Your task to perform on an android device: set the stopwatch Image 0: 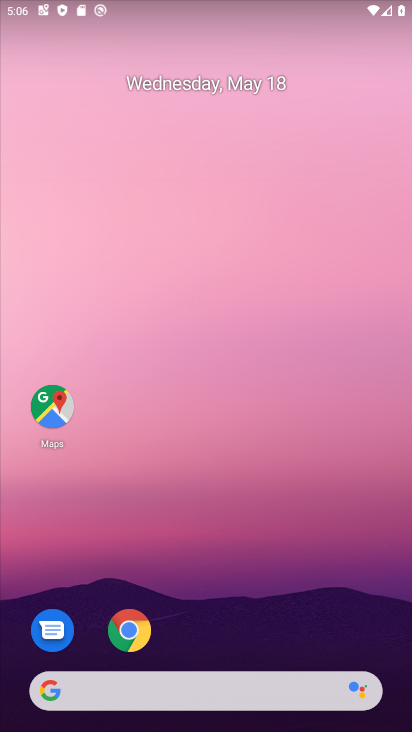
Step 0: drag from (159, 665) to (246, 218)
Your task to perform on an android device: set the stopwatch Image 1: 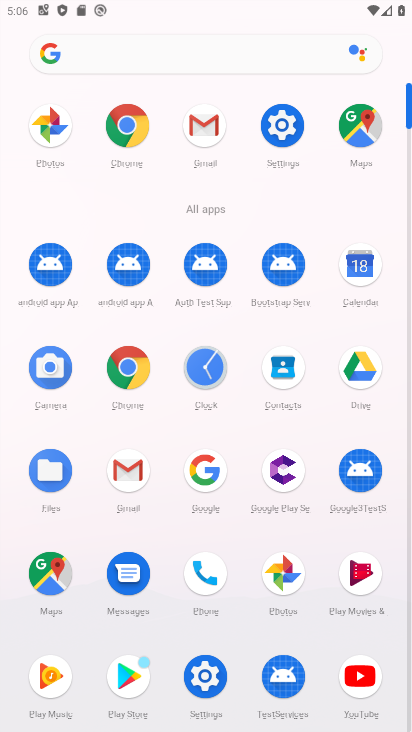
Step 1: click (198, 358)
Your task to perform on an android device: set the stopwatch Image 2: 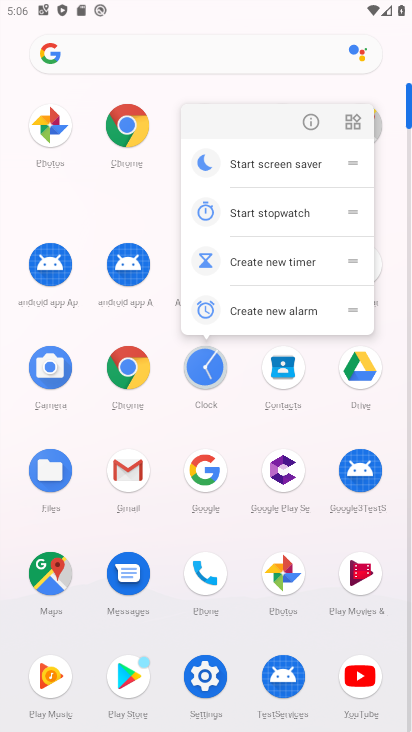
Step 2: click (197, 372)
Your task to perform on an android device: set the stopwatch Image 3: 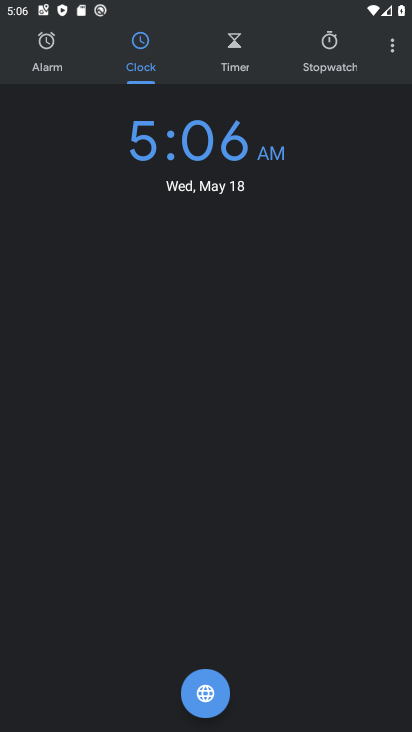
Step 3: click (322, 55)
Your task to perform on an android device: set the stopwatch Image 4: 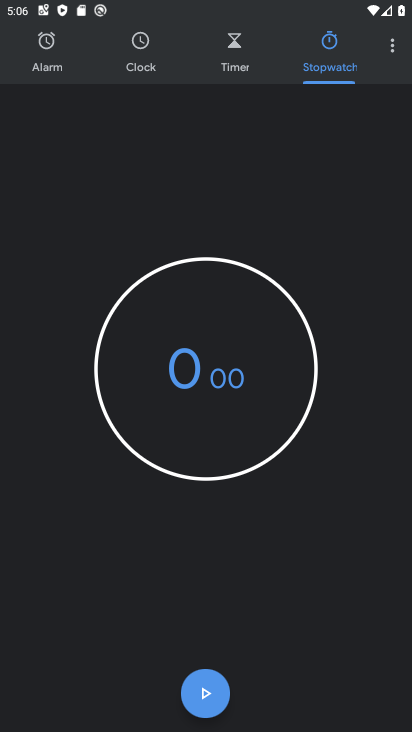
Step 4: click (202, 694)
Your task to perform on an android device: set the stopwatch Image 5: 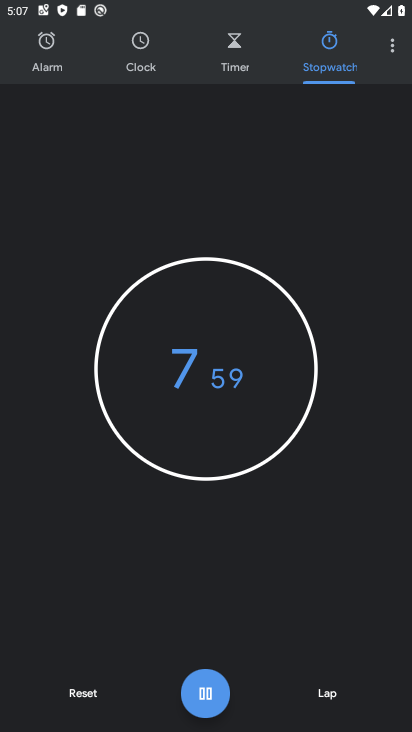
Step 5: task complete